Your task to perform on an android device: allow notifications from all sites in the chrome app Image 0: 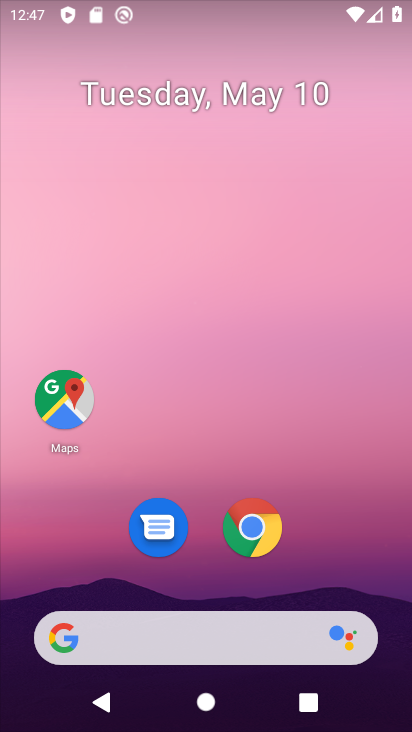
Step 0: click (324, 198)
Your task to perform on an android device: allow notifications from all sites in the chrome app Image 1: 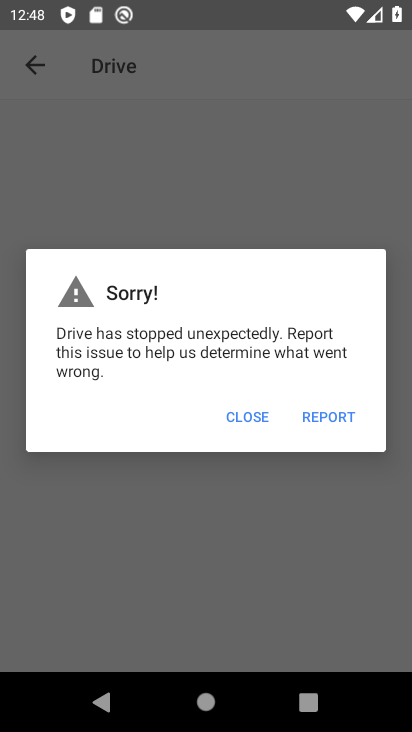
Step 1: press home button
Your task to perform on an android device: allow notifications from all sites in the chrome app Image 2: 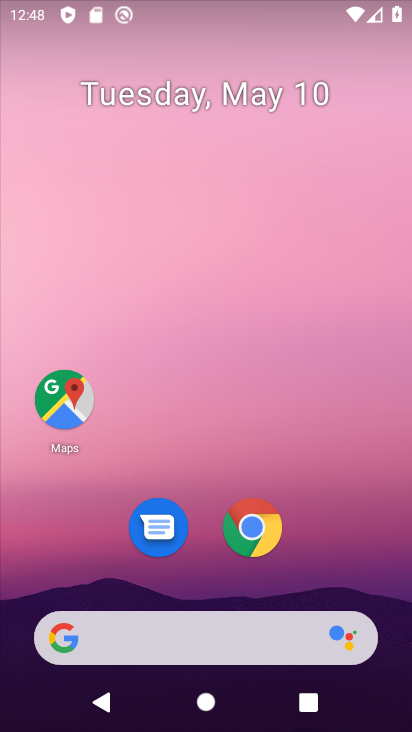
Step 2: click (251, 533)
Your task to perform on an android device: allow notifications from all sites in the chrome app Image 3: 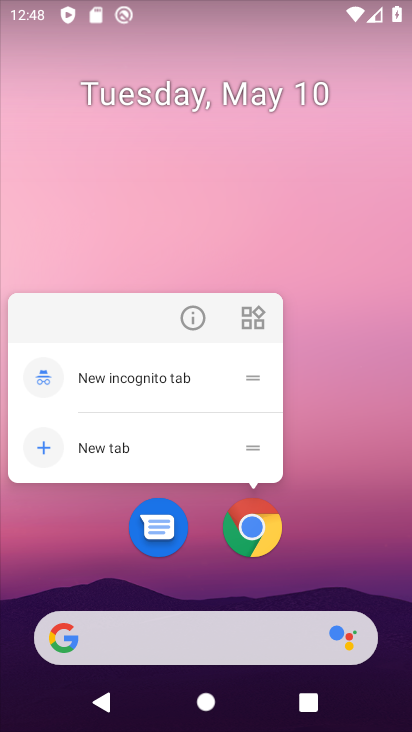
Step 3: click (256, 542)
Your task to perform on an android device: allow notifications from all sites in the chrome app Image 4: 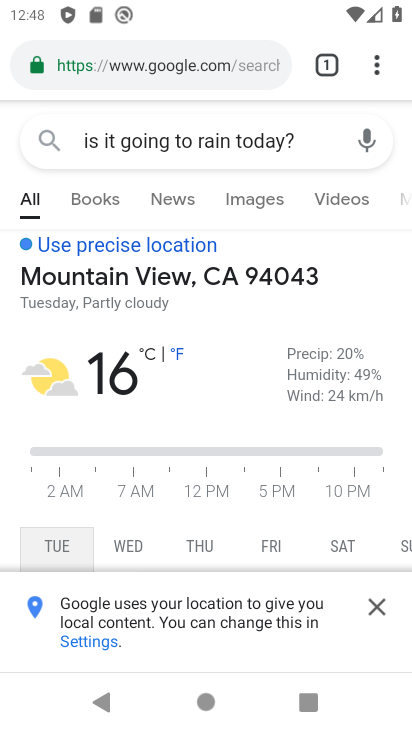
Step 4: drag from (382, 73) to (224, 583)
Your task to perform on an android device: allow notifications from all sites in the chrome app Image 5: 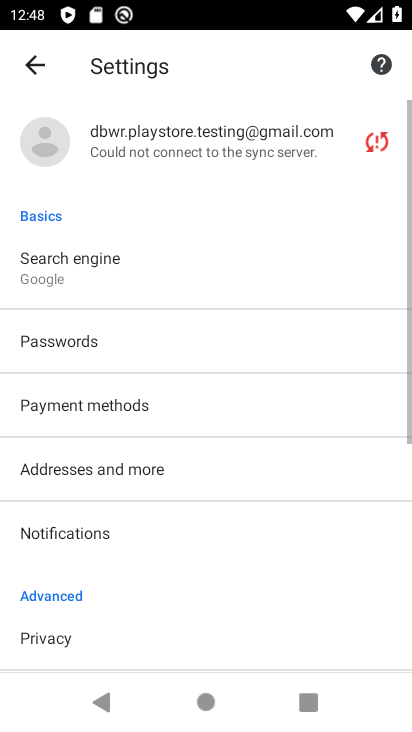
Step 5: drag from (220, 577) to (196, 179)
Your task to perform on an android device: allow notifications from all sites in the chrome app Image 6: 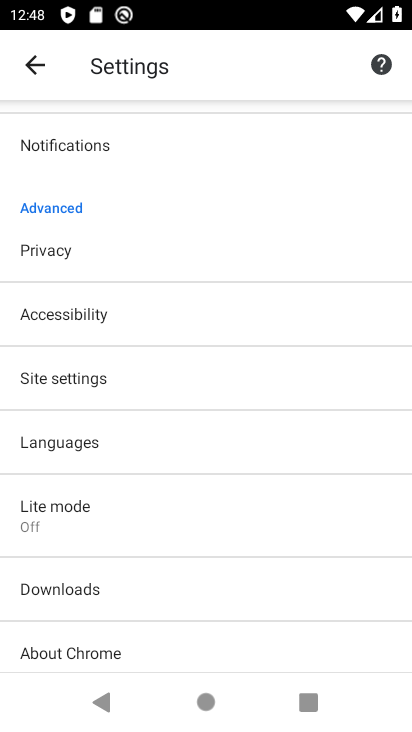
Step 6: click (88, 383)
Your task to perform on an android device: allow notifications from all sites in the chrome app Image 7: 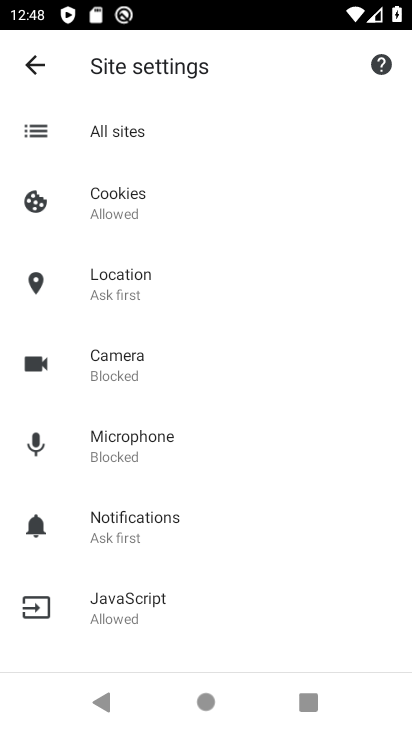
Step 7: click (126, 532)
Your task to perform on an android device: allow notifications from all sites in the chrome app Image 8: 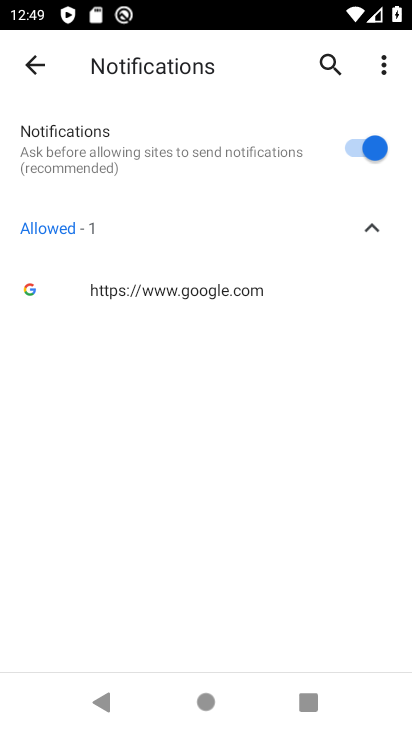
Step 8: task complete